Your task to perform on an android device: Open sound settings Image 0: 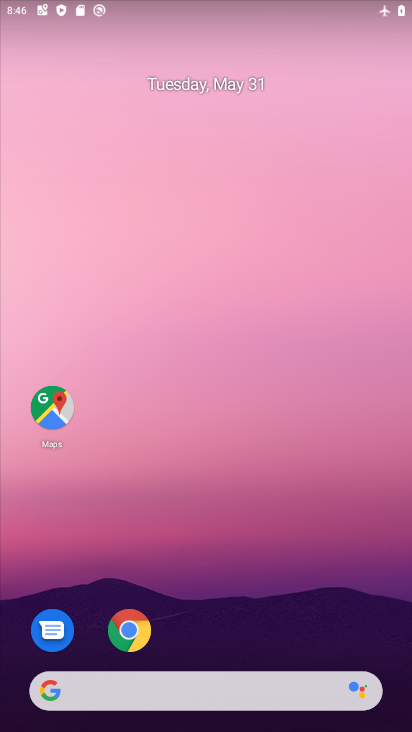
Step 0: drag from (203, 614) to (232, 222)
Your task to perform on an android device: Open sound settings Image 1: 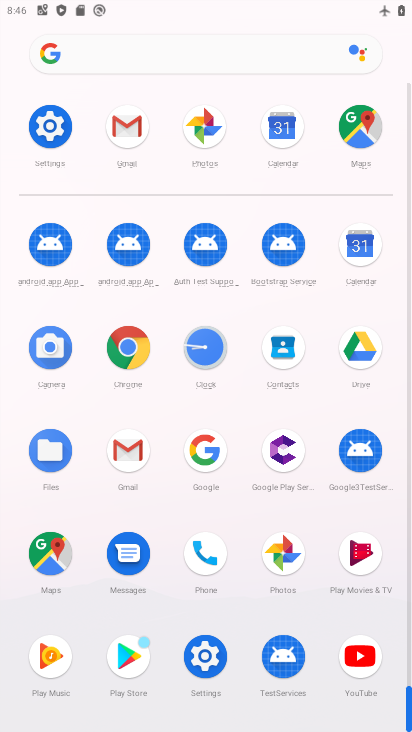
Step 1: click (45, 119)
Your task to perform on an android device: Open sound settings Image 2: 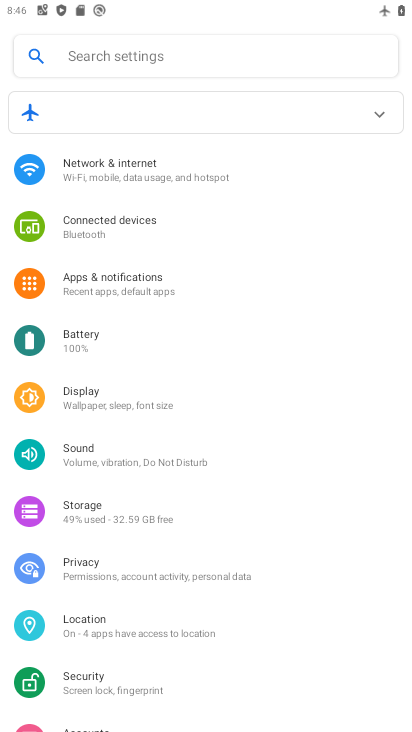
Step 2: click (101, 451)
Your task to perform on an android device: Open sound settings Image 3: 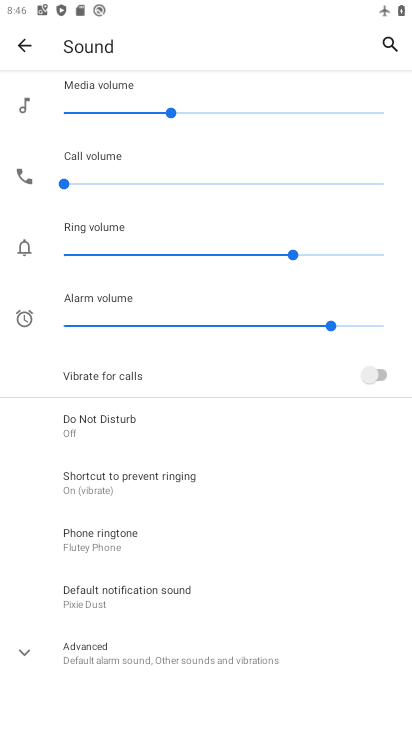
Step 3: task complete